Your task to perform on an android device: Search for seafood restaurants on Google Maps Image 0: 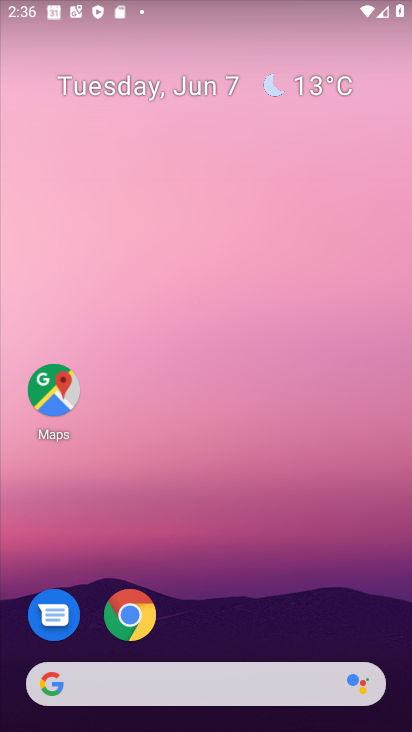
Step 0: click (44, 383)
Your task to perform on an android device: Search for seafood restaurants on Google Maps Image 1: 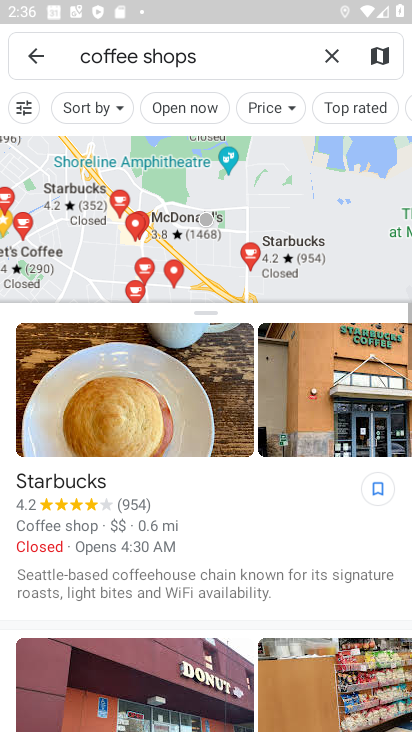
Step 1: click (324, 49)
Your task to perform on an android device: Search for seafood restaurants on Google Maps Image 2: 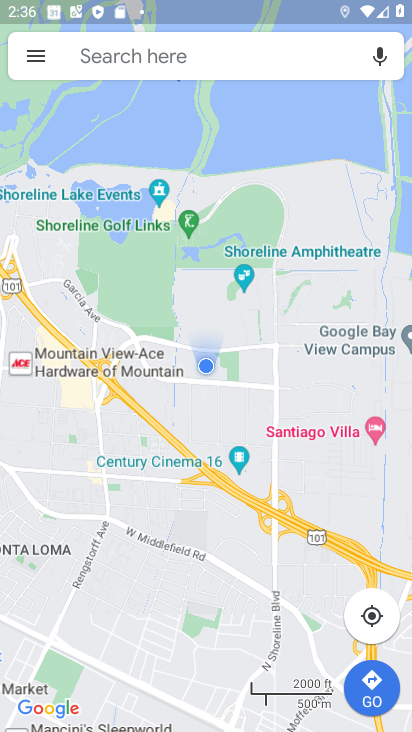
Step 2: click (176, 61)
Your task to perform on an android device: Search for seafood restaurants on Google Maps Image 3: 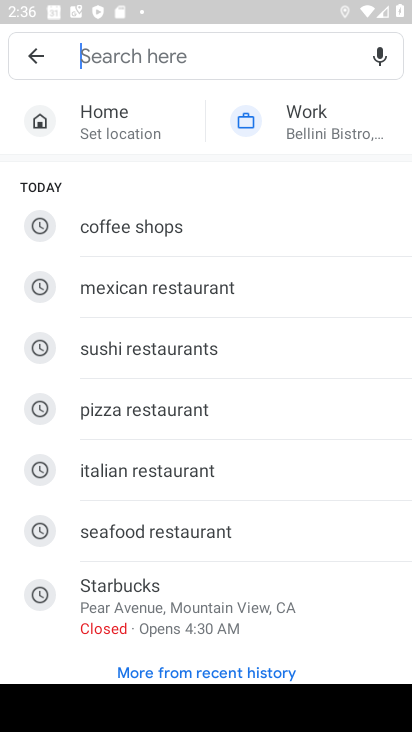
Step 3: type "seafood restaurants"
Your task to perform on an android device: Search for seafood restaurants on Google Maps Image 4: 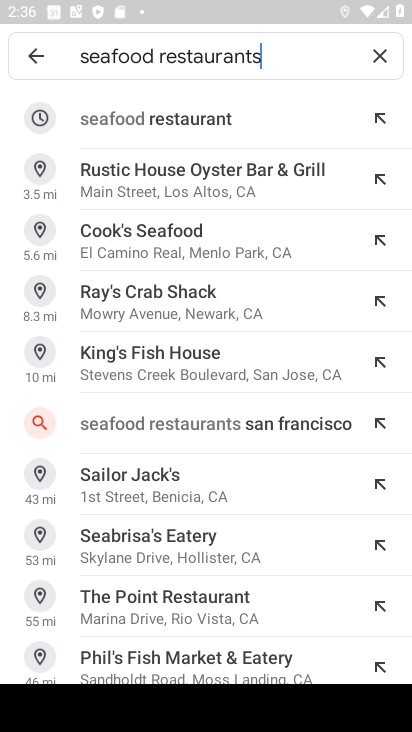
Step 4: click (195, 120)
Your task to perform on an android device: Search for seafood restaurants on Google Maps Image 5: 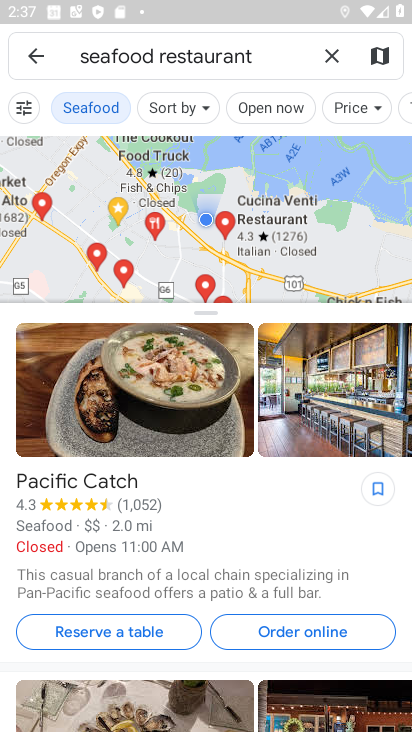
Step 5: task complete